Your task to perform on an android device: find photos in the google photos app Image 0: 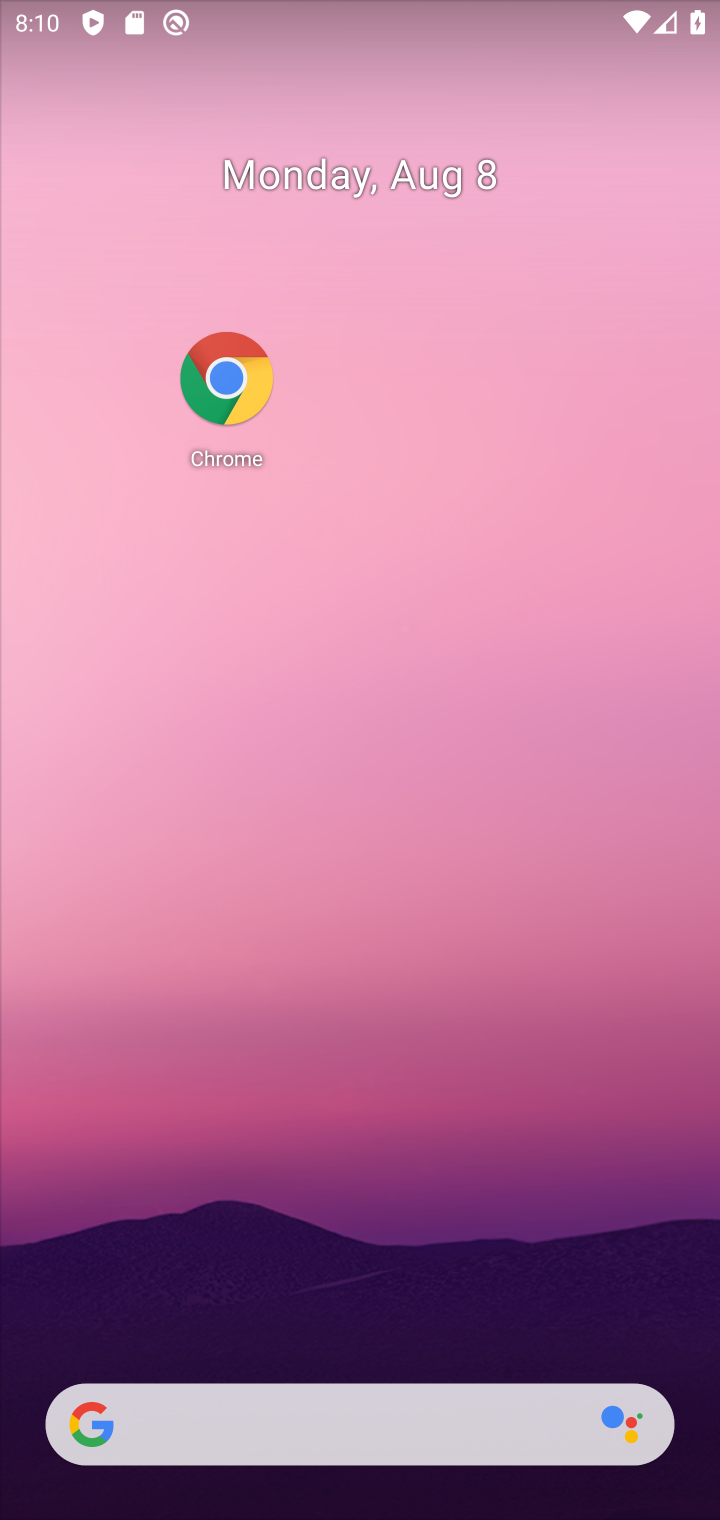
Step 0: drag from (357, 888) to (306, 81)
Your task to perform on an android device: find photos in the google photos app Image 1: 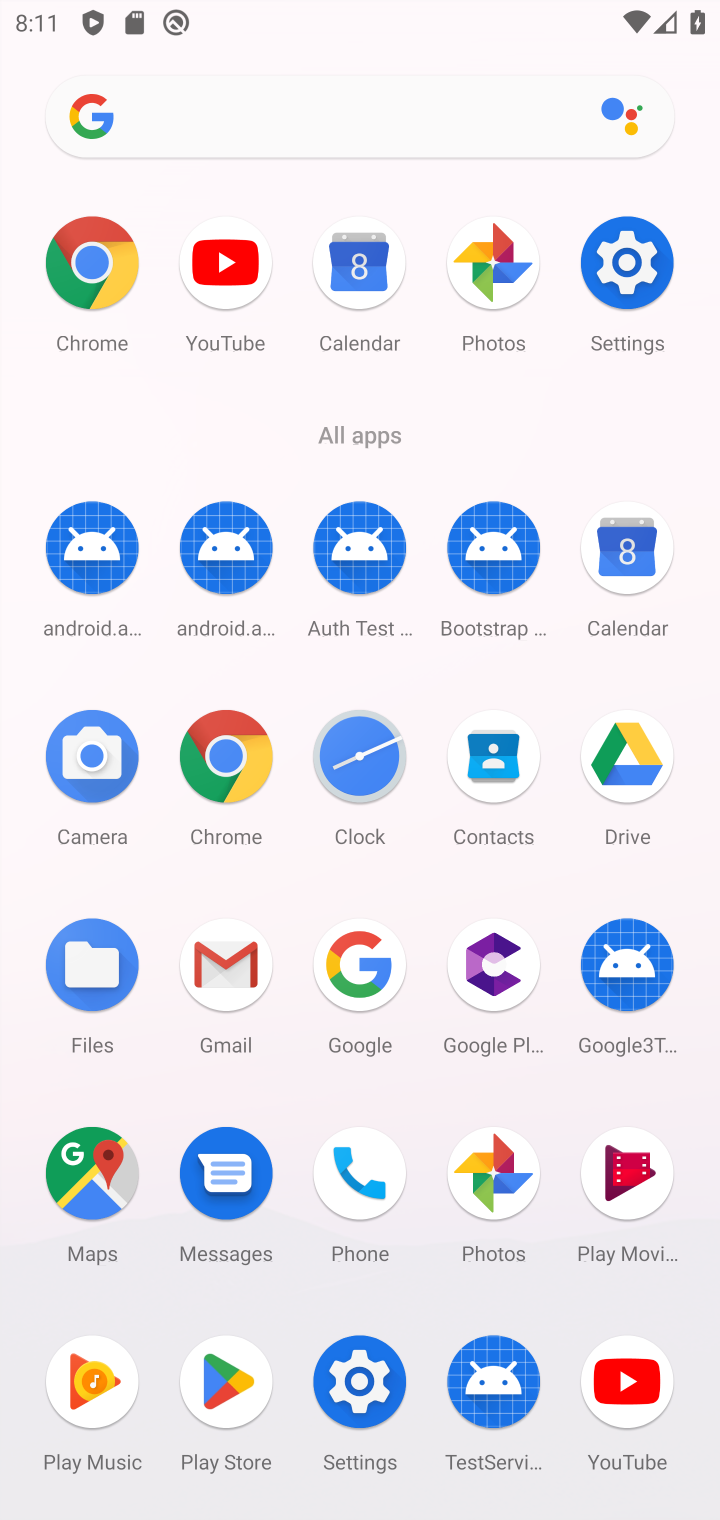
Step 1: click (497, 1186)
Your task to perform on an android device: find photos in the google photos app Image 2: 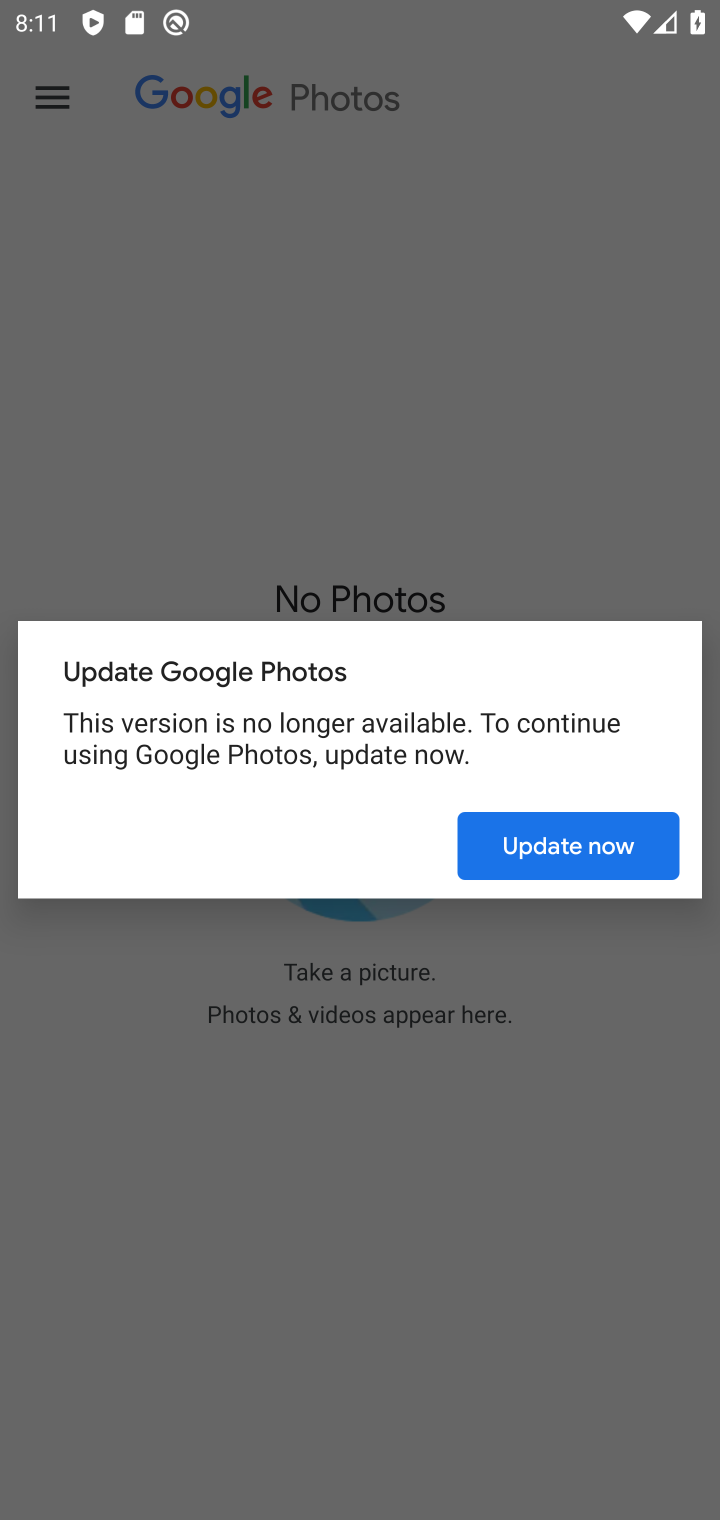
Step 2: click (526, 865)
Your task to perform on an android device: find photos in the google photos app Image 3: 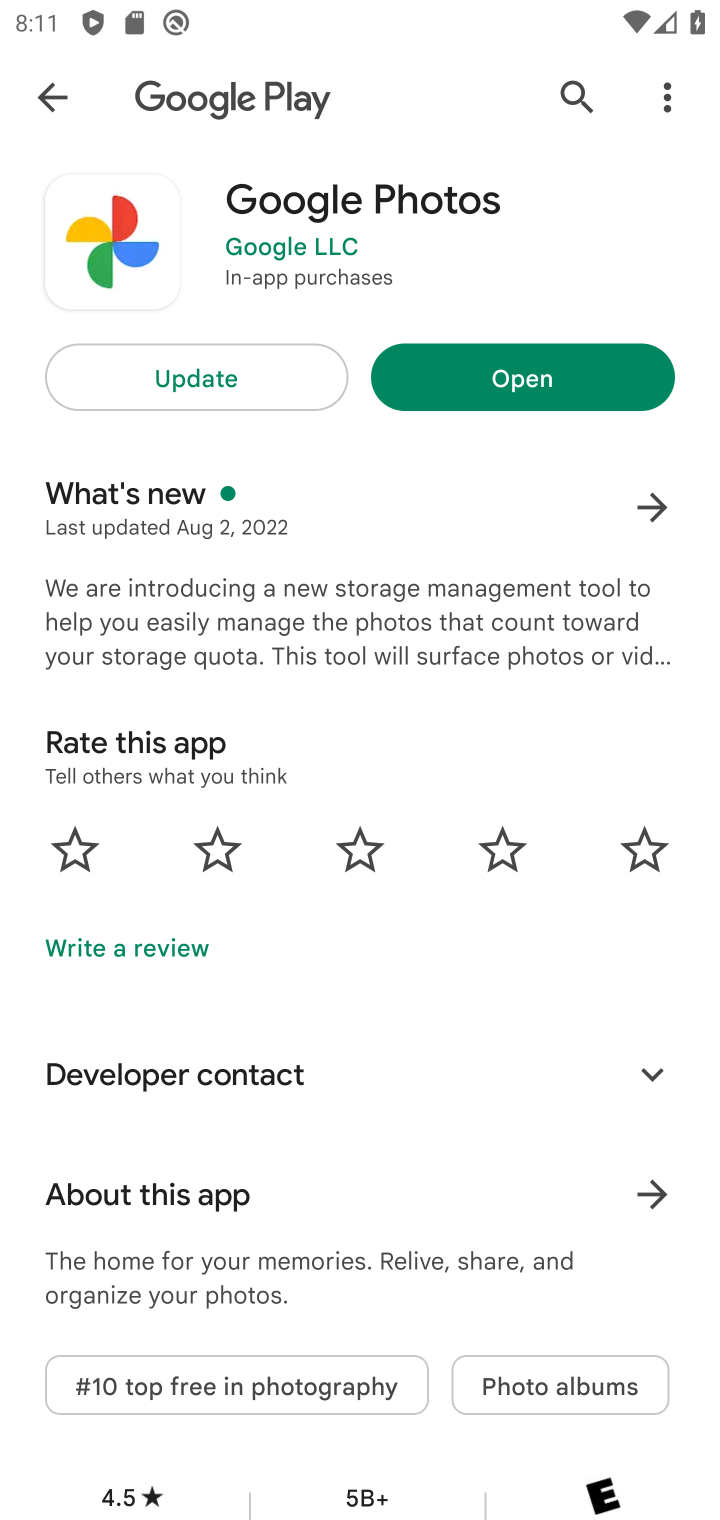
Step 3: click (163, 379)
Your task to perform on an android device: find photos in the google photos app Image 4: 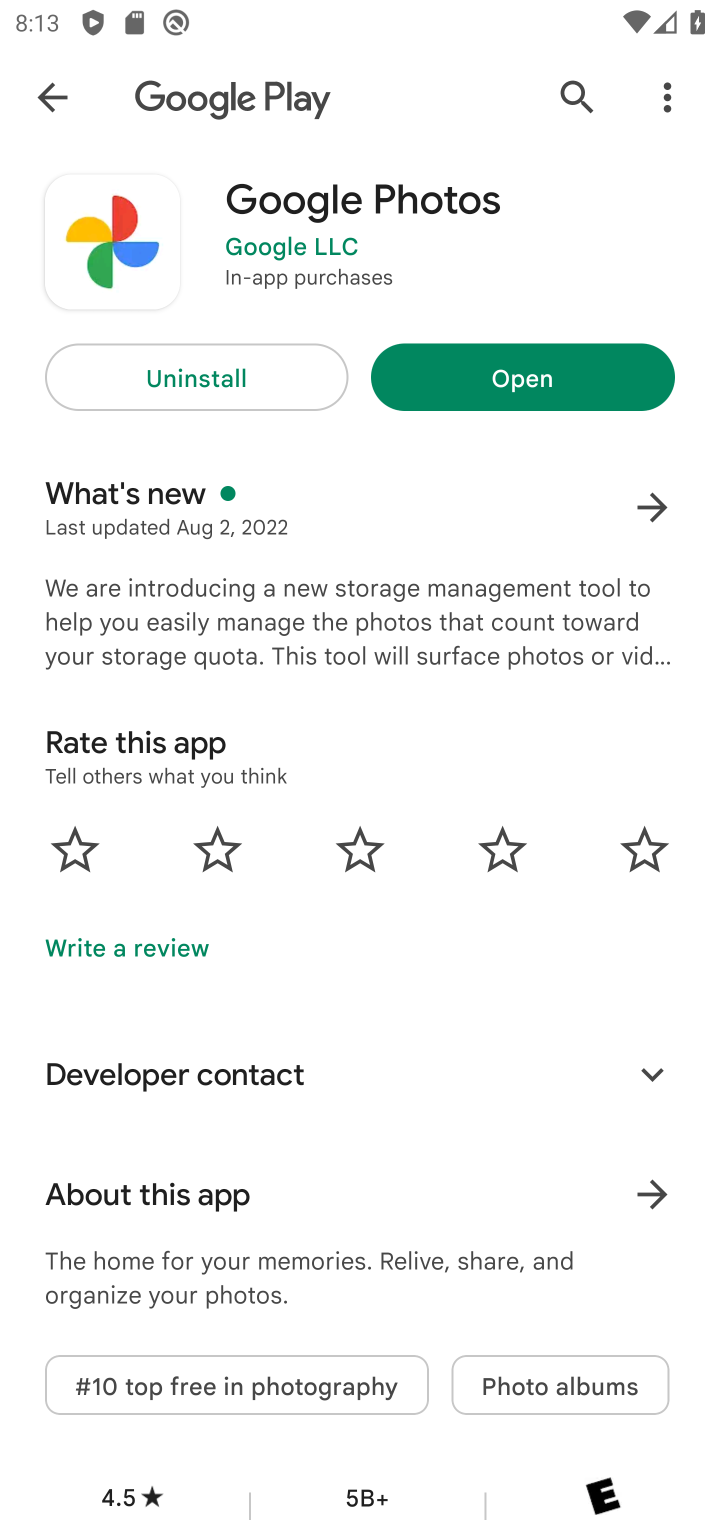
Step 4: click (458, 375)
Your task to perform on an android device: find photos in the google photos app Image 5: 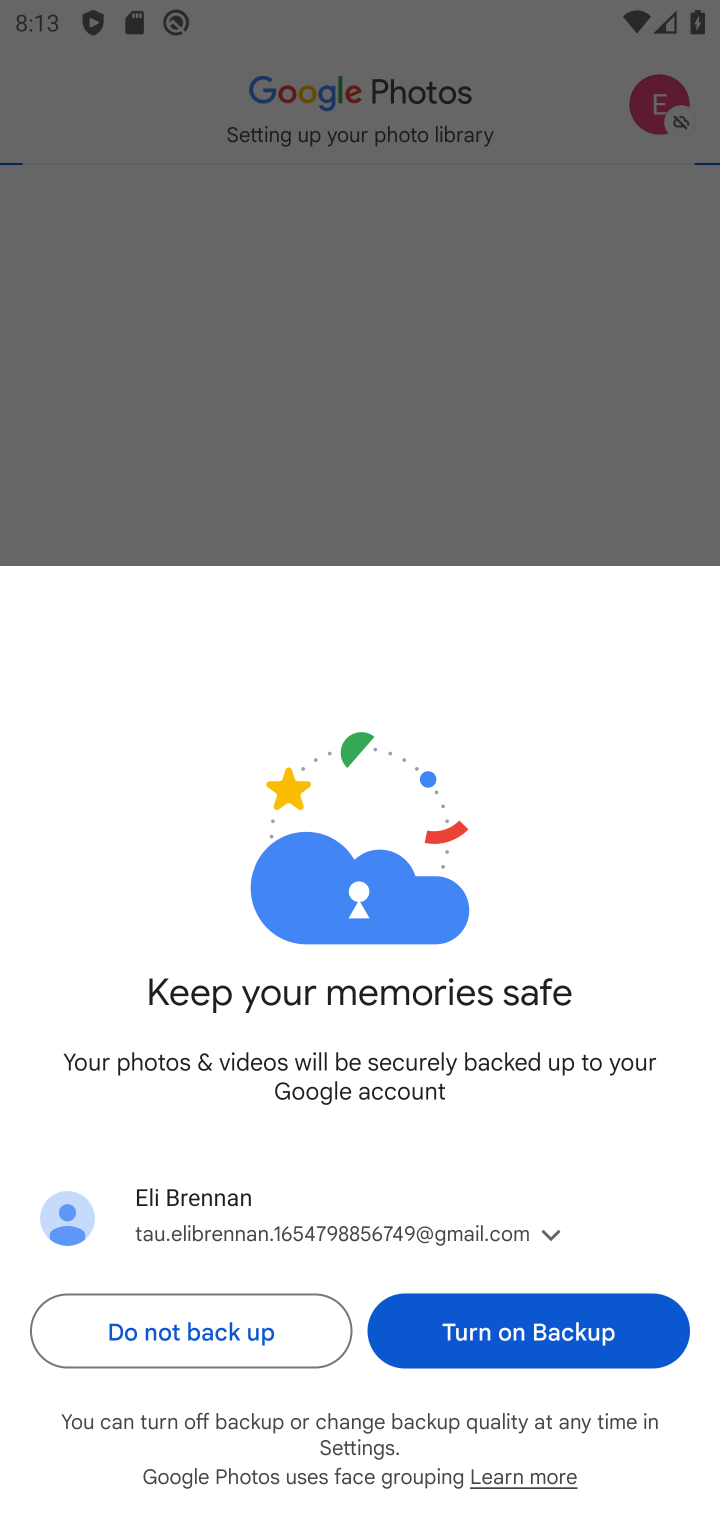
Step 5: click (450, 1328)
Your task to perform on an android device: find photos in the google photos app Image 6: 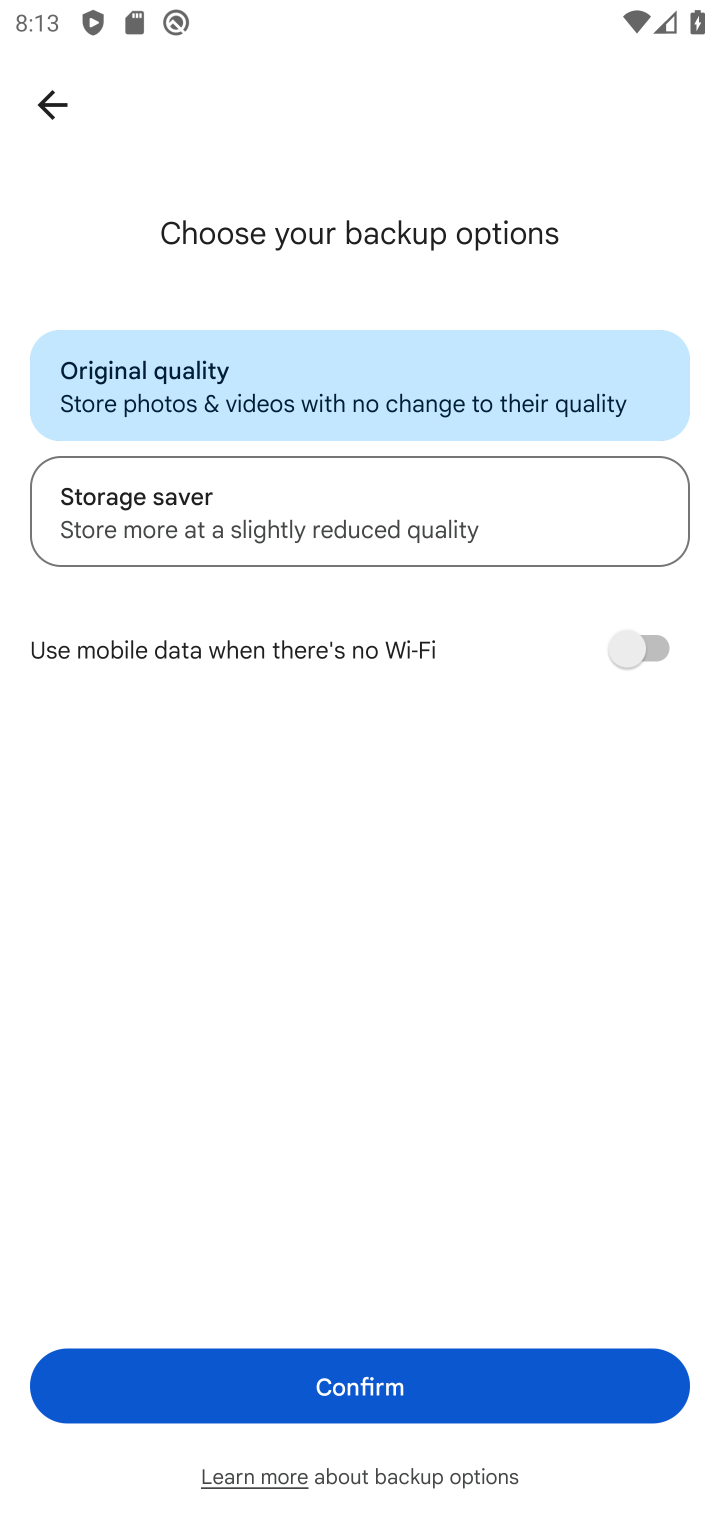
Step 6: click (392, 1380)
Your task to perform on an android device: find photos in the google photos app Image 7: 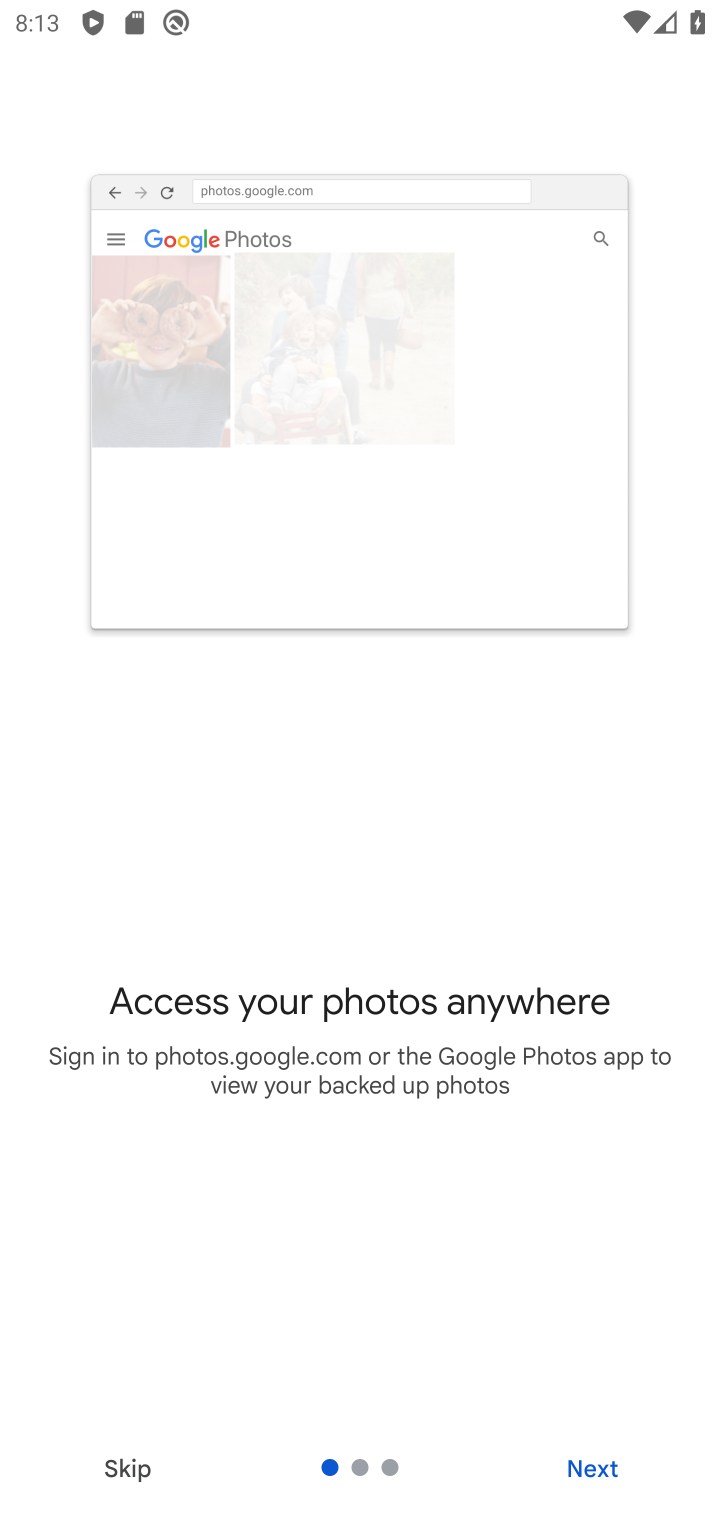
Step 7: click (593, 1474)
Your task to perform on an android device: find photos in the google photos app Image 8: 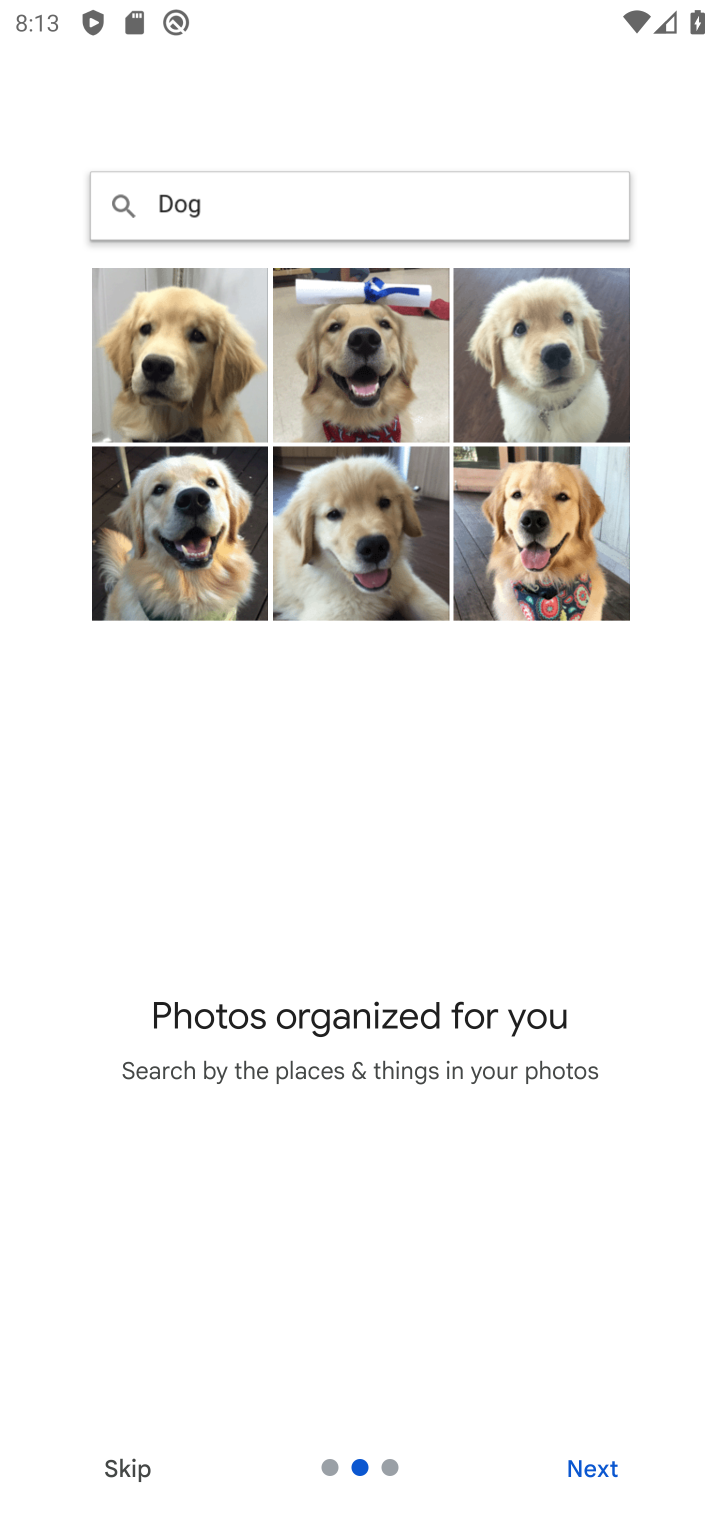
Step 8: click (593, 1474)
Your task to perform on an android device: find photos in the google photos app Image 9: 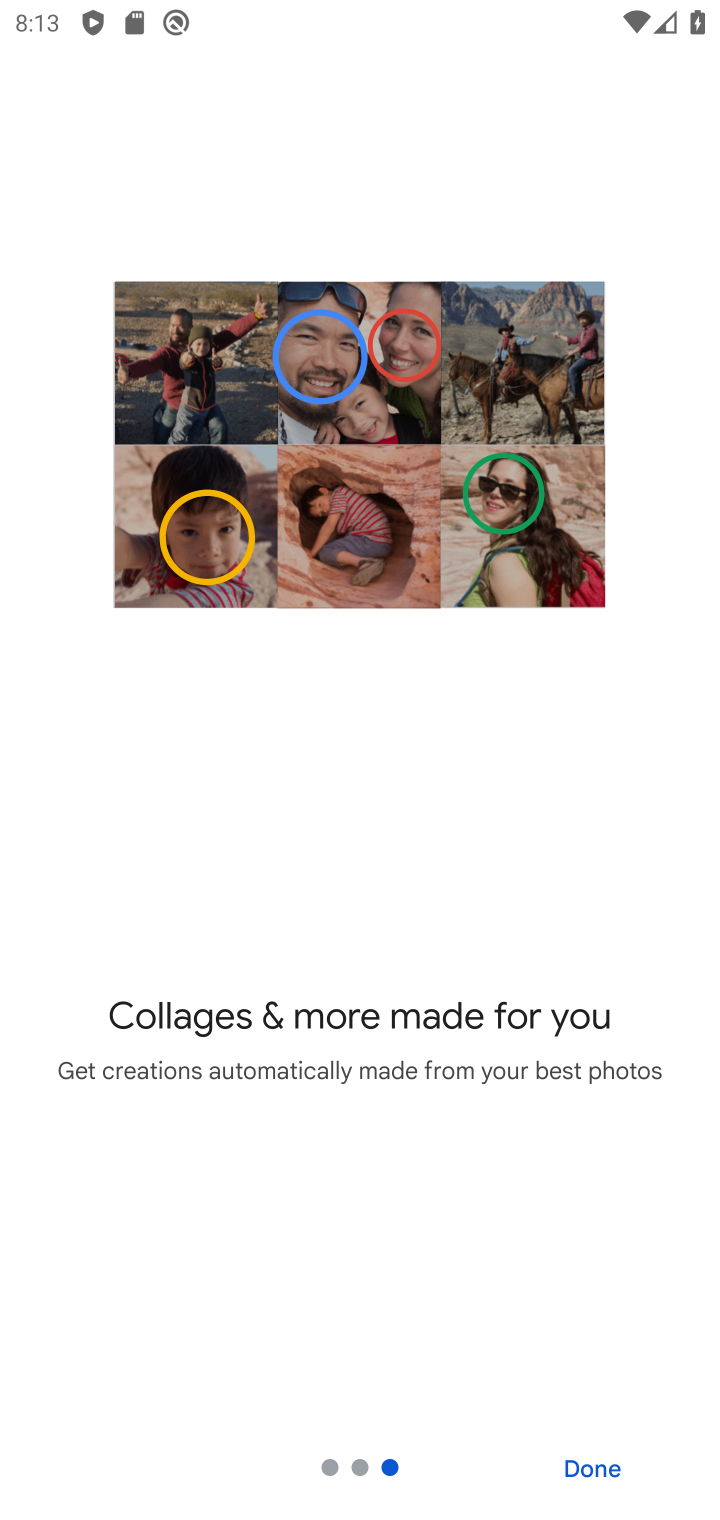
Step 9: click (593, 1474)
Your task to perform on an android device: find photos in the google photos app Image 10: 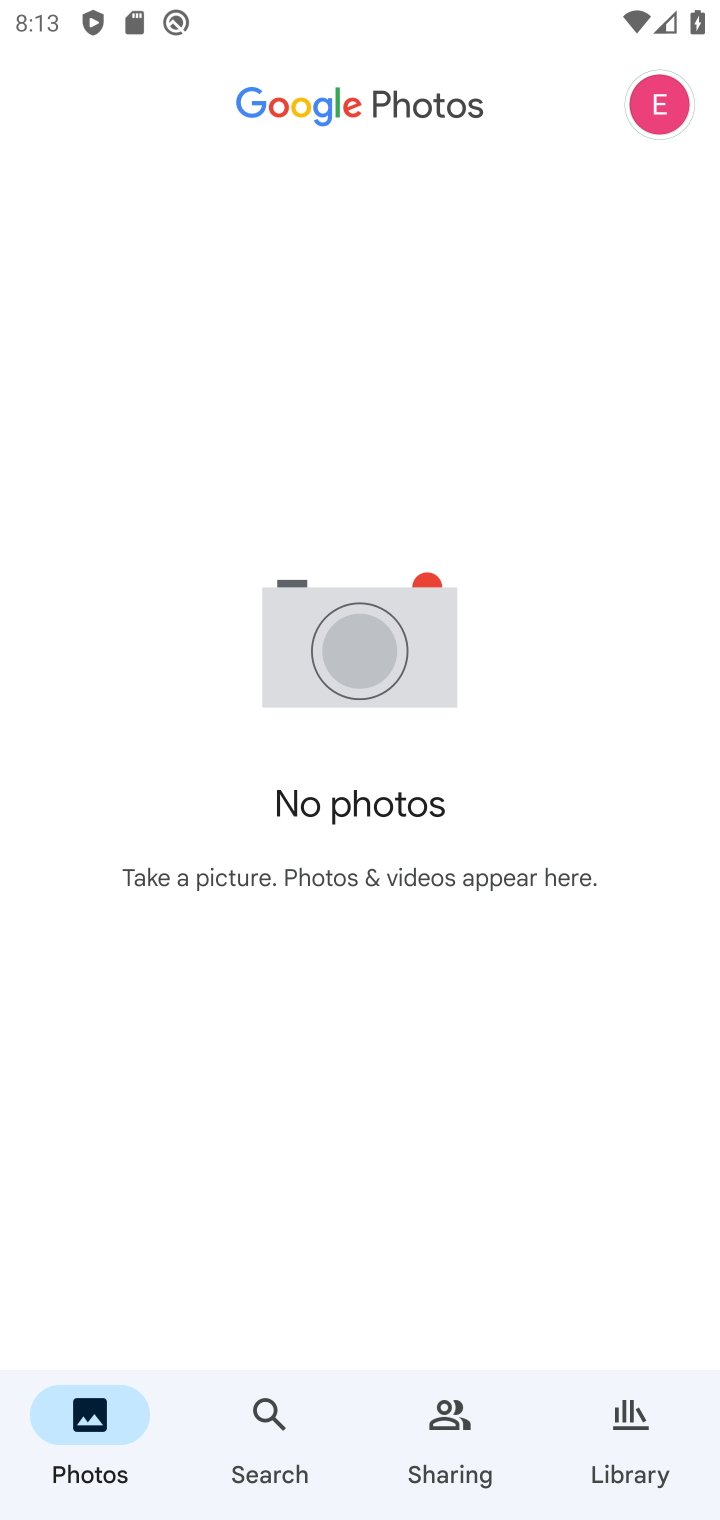
Step 10: task complete